Your task to perform on an android device: Turn on the flashlight Image 0: 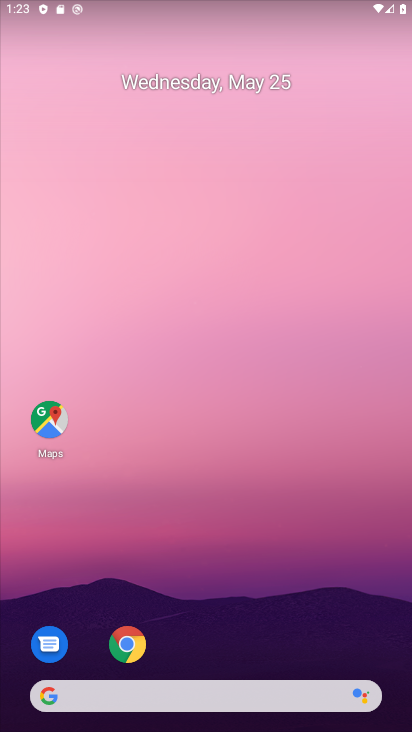
Step 0: drag from (274, 4) to (272, 417)
Your task to perform on an android device: Turn on the flashlight Image 1: 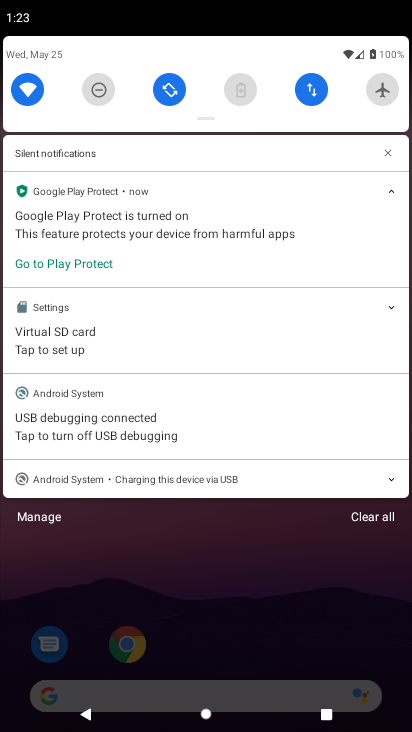
Step 1: drag from (205, 59) to (221, 370)
Your task to perform on an android device: Turn on the flashlight Image 2: 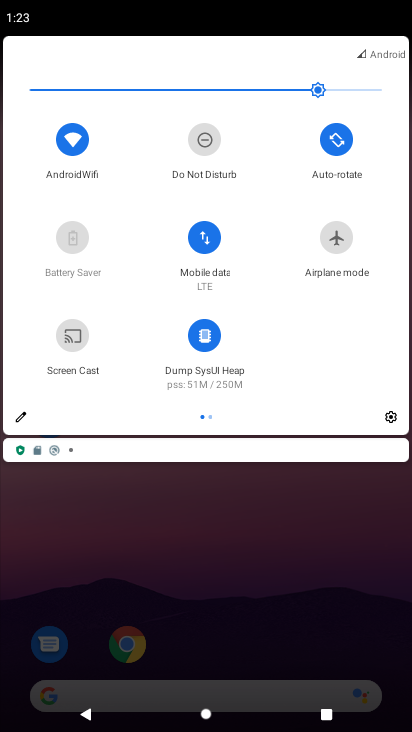
Step 2: click (22, 407)
Your task to perform on an android device: Turn on the flashlight Image 3: 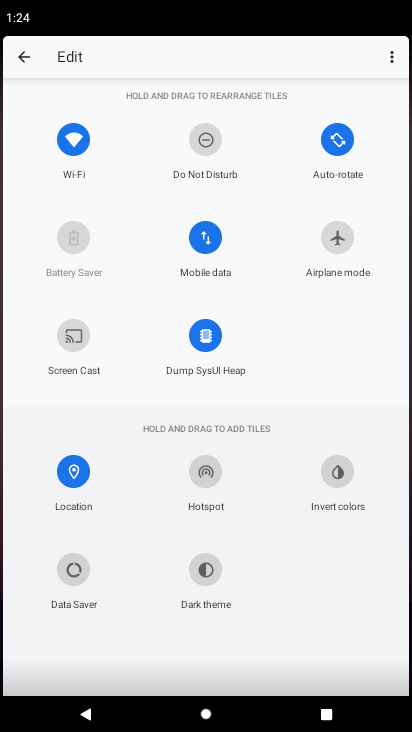
Step 3: task complete